Your task to perform on an android device: open a bookmark in the chrome app Image 0: 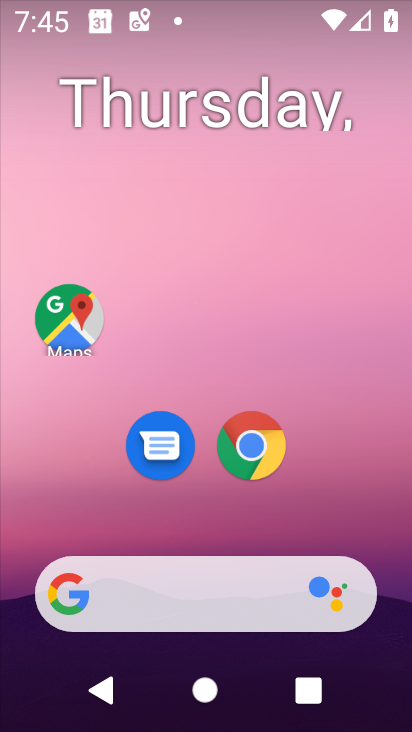
Step 0: drag from (371, 630) to (261, 29)
Your task to perform on an android device: open a bookmark in the chrome app Image 1: 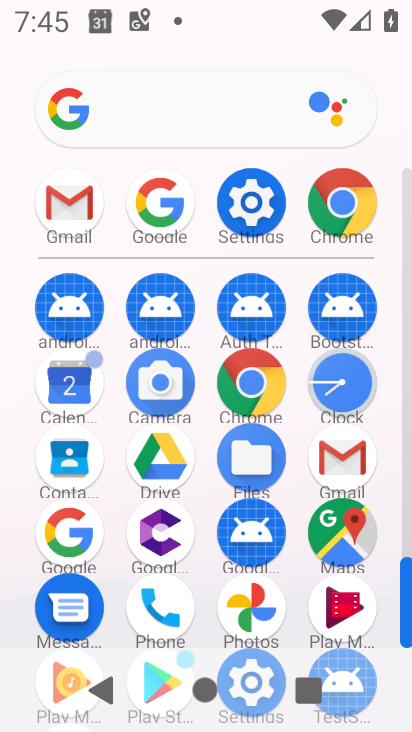
Step 1: click (348, 190)
Your task to perform on an android device: open a bookmark in the chrome app Image 2: 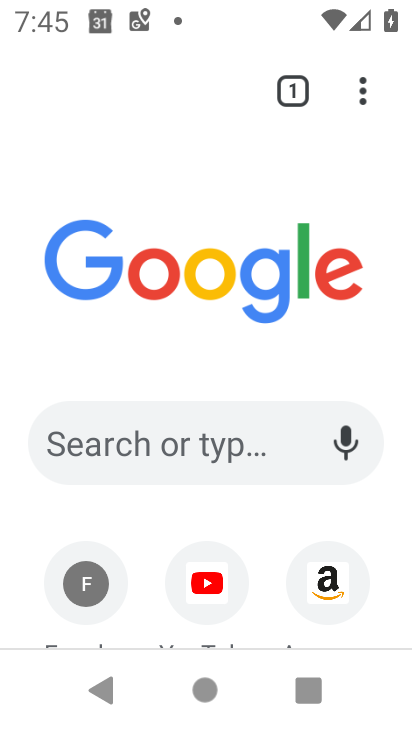
Step 2: click (360, 94)
Your task to perform on an android device: open a bookmark in the chrome app Image 3: 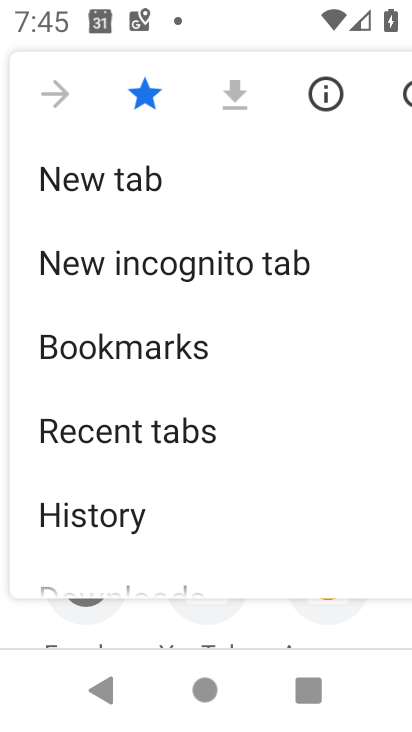
Step 3: click (83, 354)
Your task to perform on an android device: open a bookmark in the chrome app Image 4: 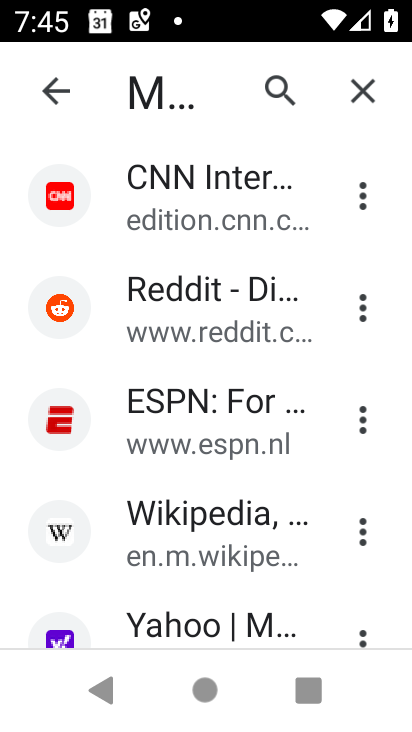
Step 4: task complete